Your task to perform on an android device: Search for lenovo thinkpad on walmart.com, select the first entry, add it to the cart, then select checkout. Image 0: 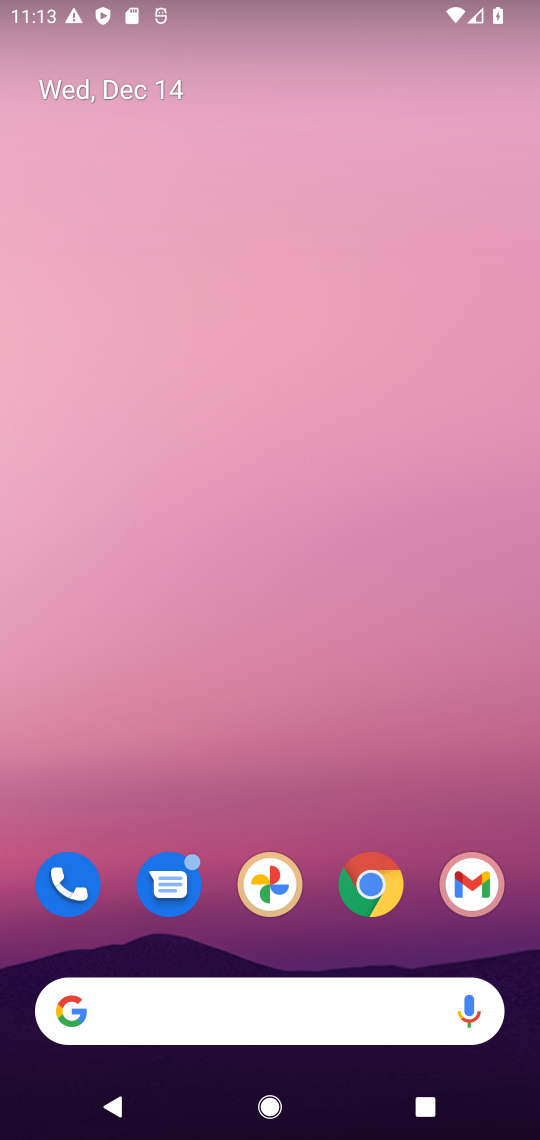
Step 0: click (390, 863)
Your task to perform on an android device: Search for lenovo thinkpad on walmart.com, select the first entry, add it to the cart, then select checkout. Image 1: 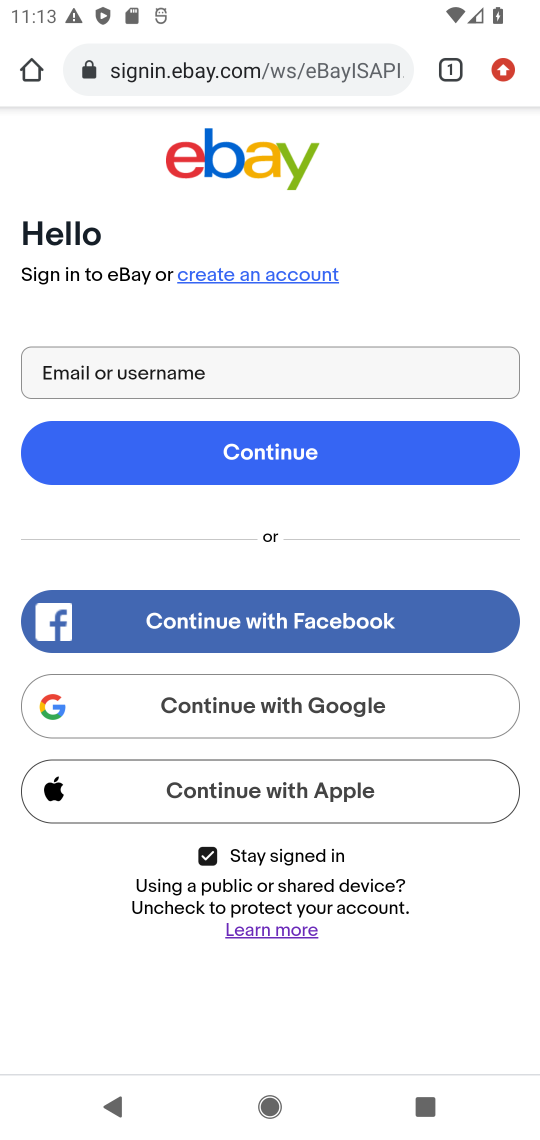
Step 1: click (191, 72)
Your task to perform on an android device: Search for lenovo thinkpad on walmart.com, select the first entry, add it to the cart, then select checkout. Image 2: 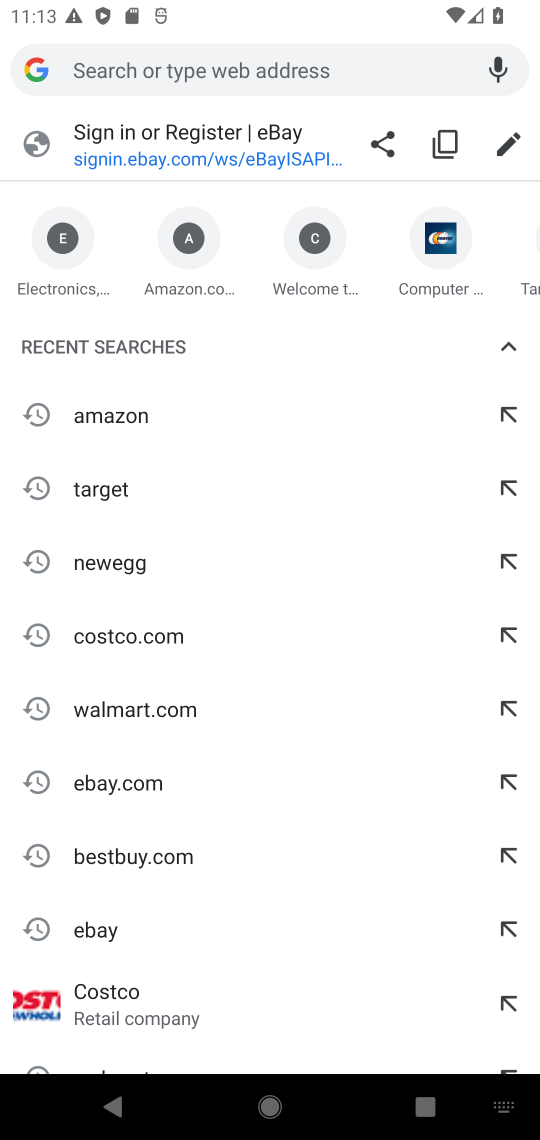
Step 2: type "walmart.com"
Your task to perform on an android device: Search for lenovo thinkpad on walmart.com, select the first entry, add it to the cart, then select checkout. Image 3: 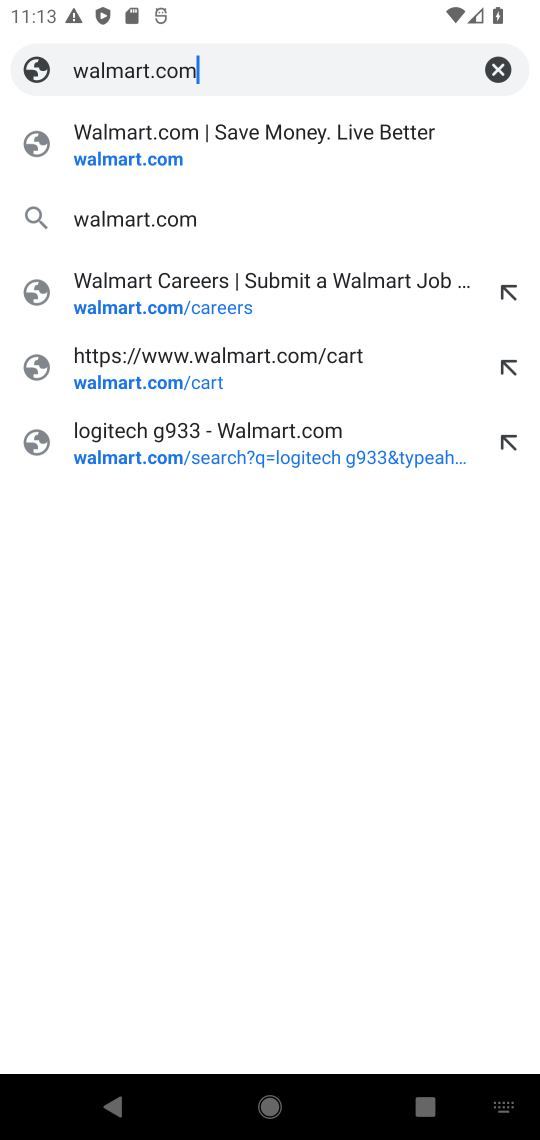
Step 3: click (146, 146)
Your task to perform on an android device: Search for lenovo thinkpad on walmart.com, select the first entry, add it to the cart, then select checkout. Image 4: 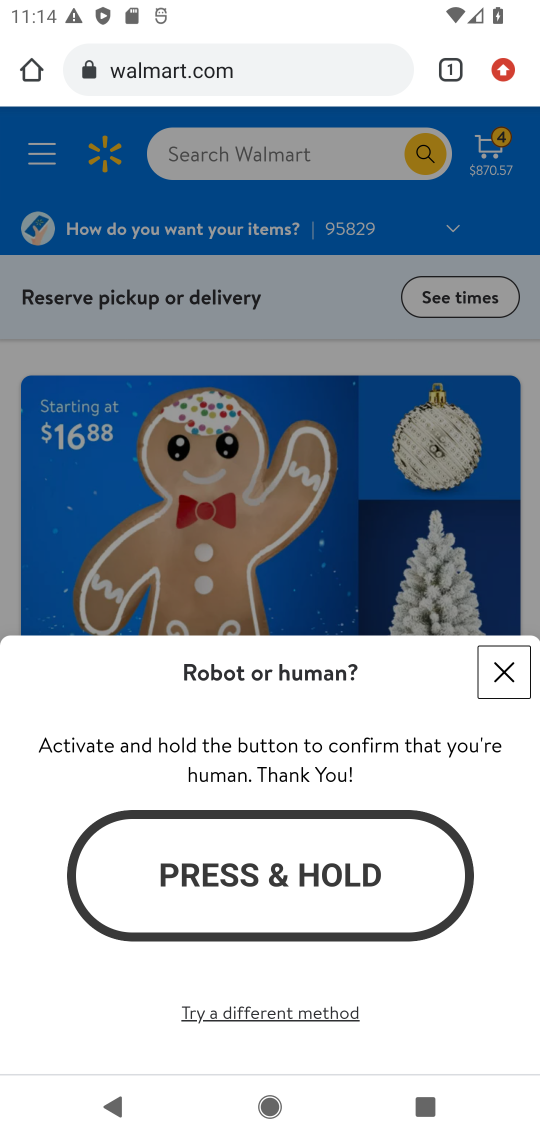
Step 4: click (511, 687)
Your task to perform on an android device: Search for lenovo thinkpad on walmart.com, select the first entry, add it to the cart, then select checkout. Image 5: 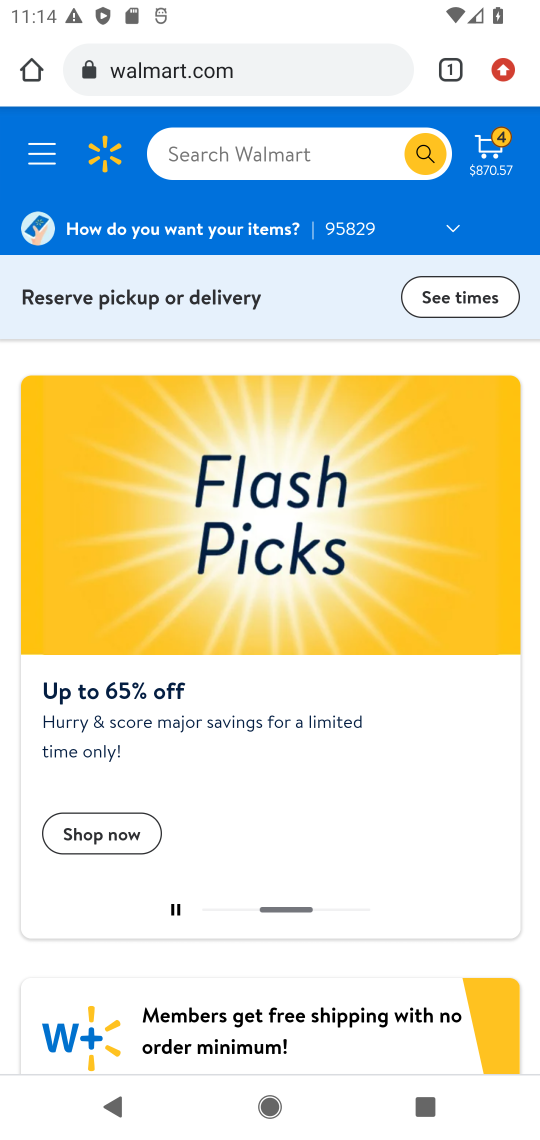
Step 5: click (292, 162)
Your task to perform on an android device: Search for lenovo thinkpad on walmart.com, select the first entry, add it to the cart, then select checkout. Image 6: 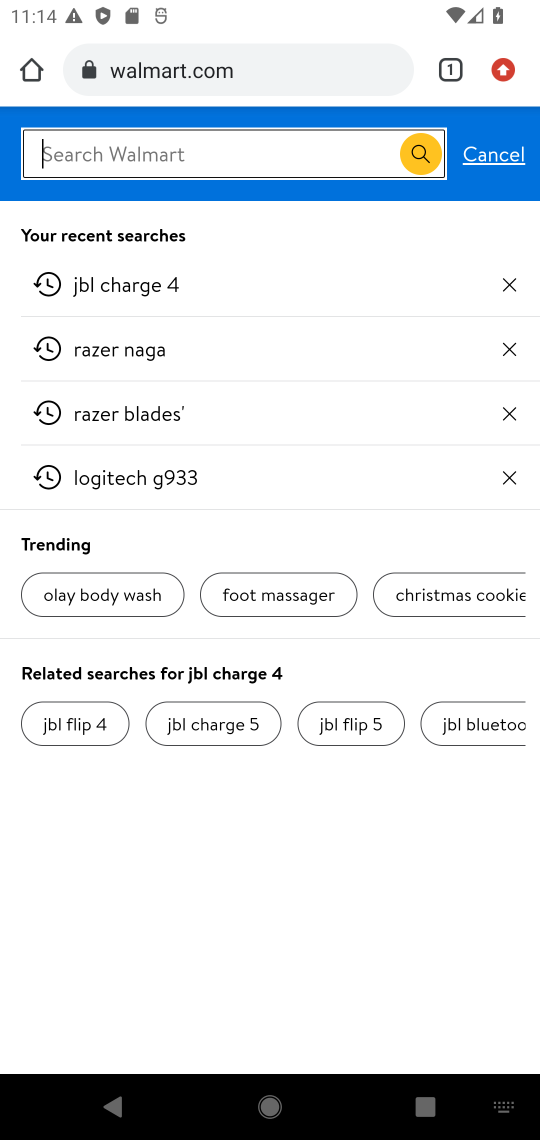
Step 6: type "lenovo thinkpad"
Your task to perform on an android device: Search for lenovo thinkpad on walmart.com, select the first entry, add it to the cart, then select checkout. Image 7: 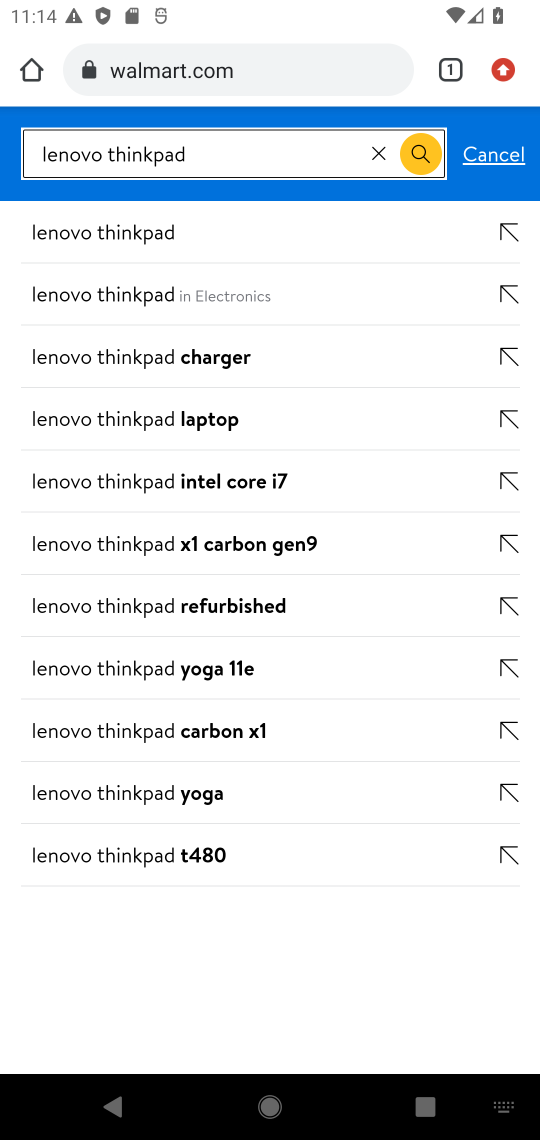
Step 7: press enter
Your task to perform on an android device: Search for lenovo thinkpad on walmart.com, select the first entry, add it to the cart, then select checkout. Image 8: 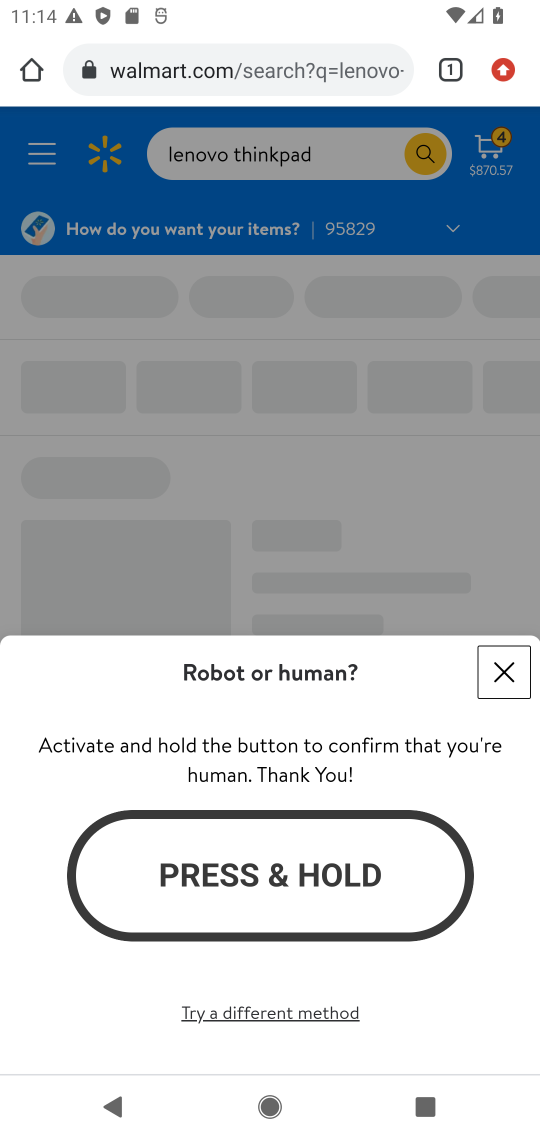
Step 8: click (495, 692)
Your task to perform on an android device: Search for lenovo thinkpad on walmart.com, select the first entry, add it to the cart, then select checkout. Image 9: 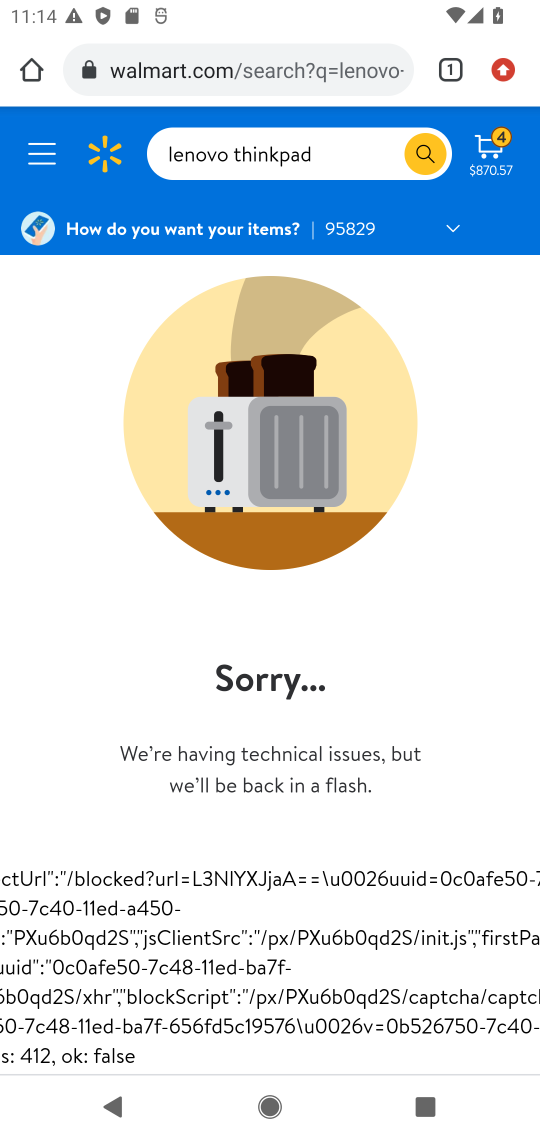
Step 9: click (418, 158)
Your task to perform on an android device: Search for lenovo thinkpad on walmart.com, select the first entry, add it to the cart, then select checkout. Image 10: 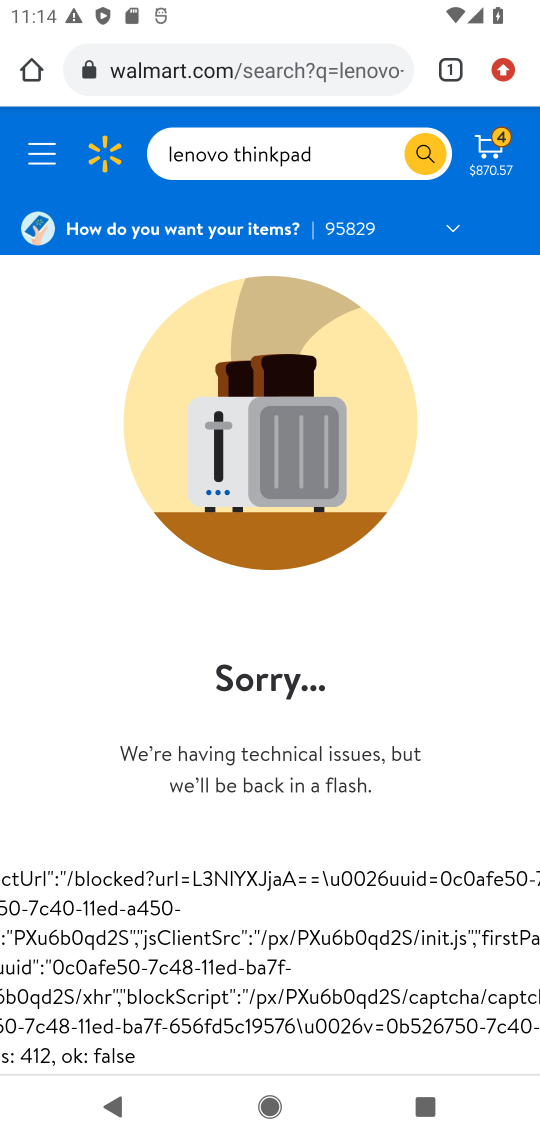
Step 10: task complete